Your task to perform on an android device: set the stopwatch Image 0: 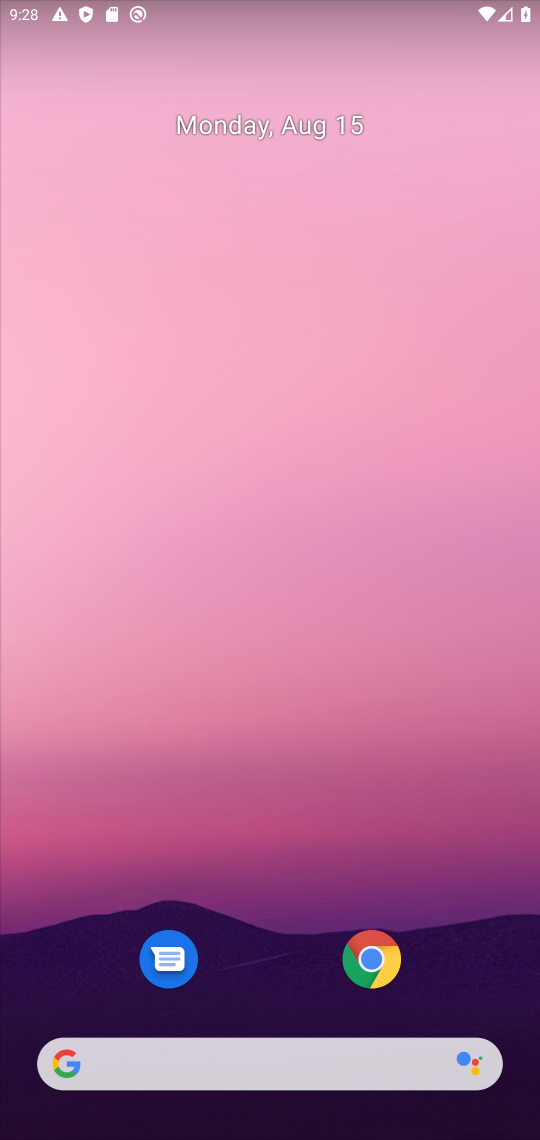
Step 0: drag from (272, 1026) to (522, 18)
Your task to perform on an android device: set the stopwatch Image 1: 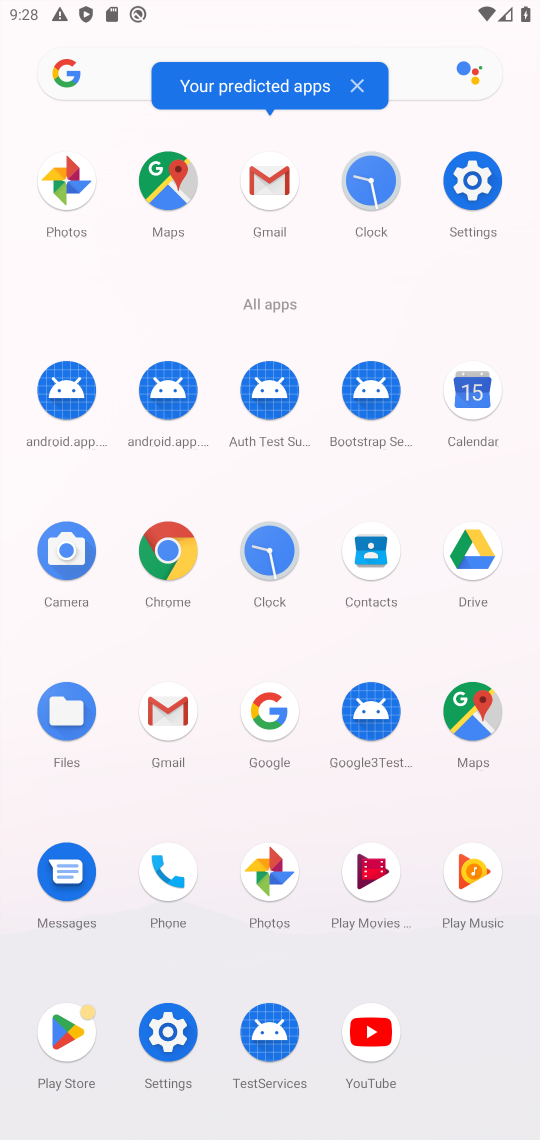
Step 1: click (243, 563)
Your task to perform on an android device: set the stopwatch Image 2: 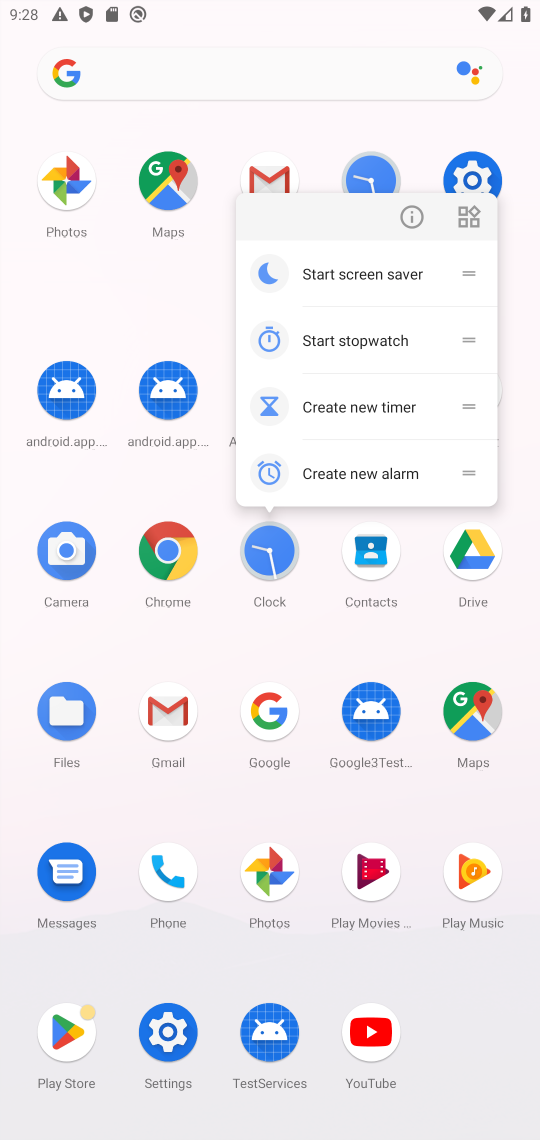
Step 2: click (264, 573)
Your task to perform on an android device: set the stopwatch Image 3: 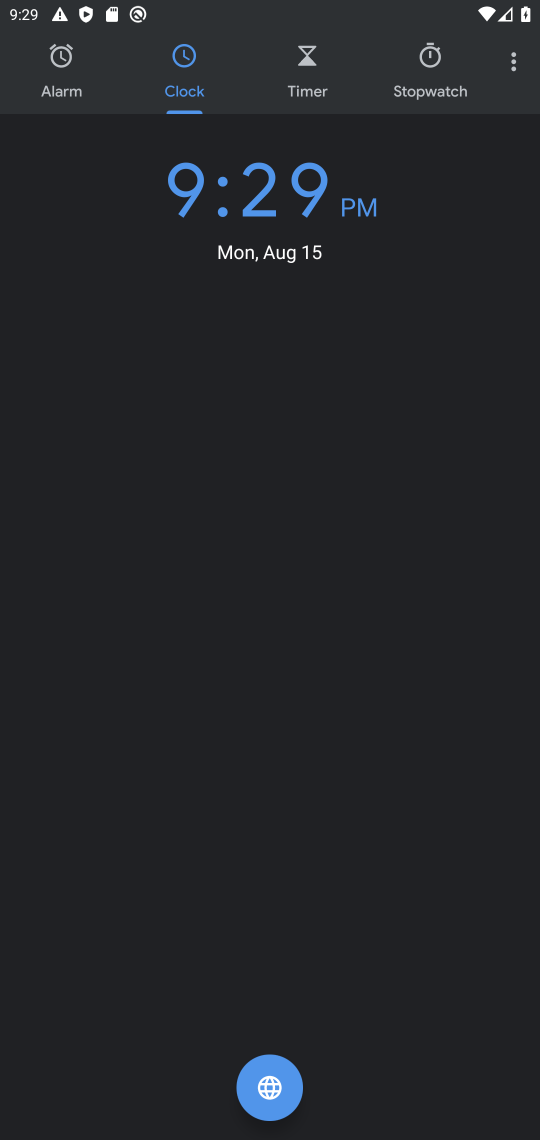
Step 3: click (430, 76)
Your task to perform on an android device: set the stopwatch Image 4: 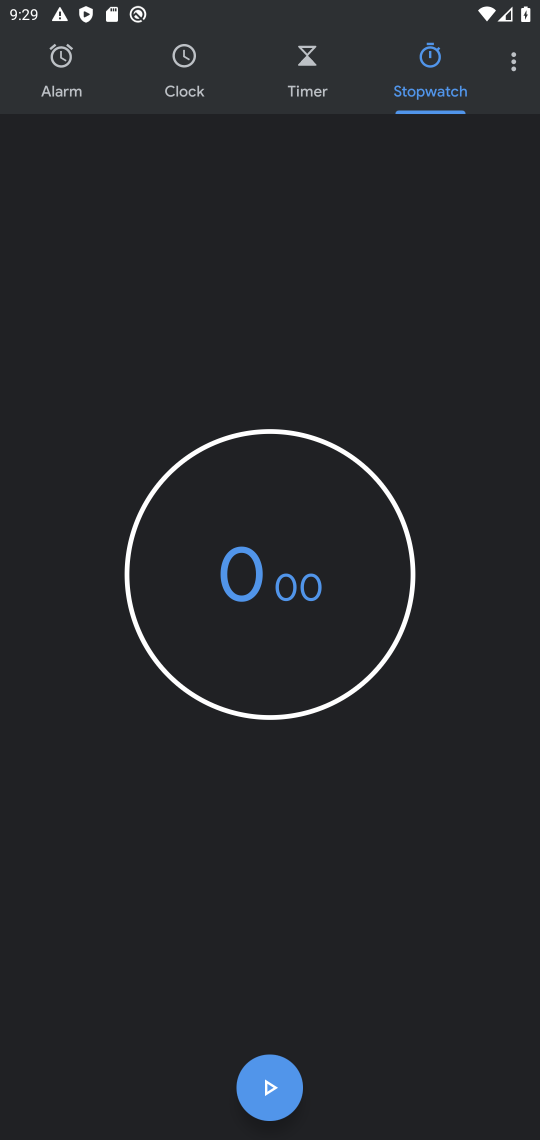
Step 4: task complete